Your task to perform on an android device: Open the Play Movies app and select the watchlist tab. Image 0: 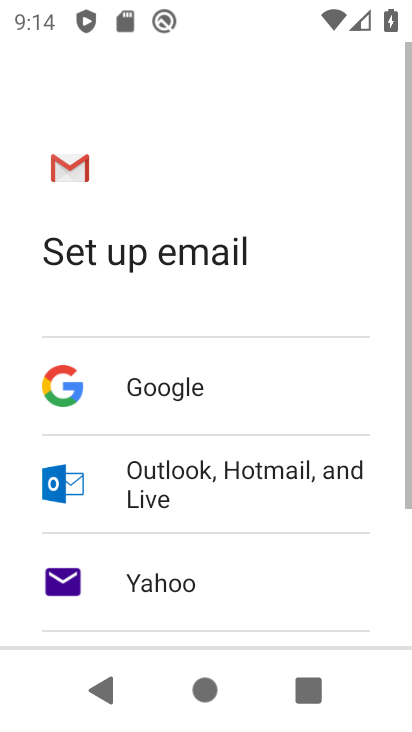
Step 0: drag from (366, 495) to (405, 428)
Your task to perform on an android device: Open the Play Movies app and select the watchlist tab. Image 1: 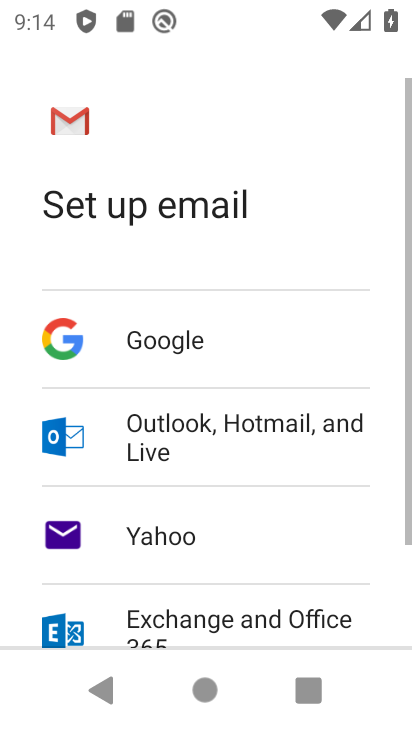
Step 1: press home button
Your task to perform on an android device: Open the Play Movies app and select the watchlist tab. Image 2: 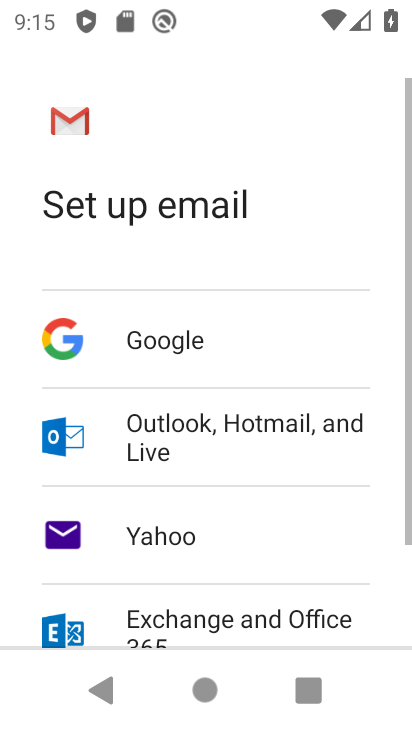
Step 2: click (405, 428)
Your task to perform on an android device: Open the Play Movies app and select the watchlist tab. Image 3: 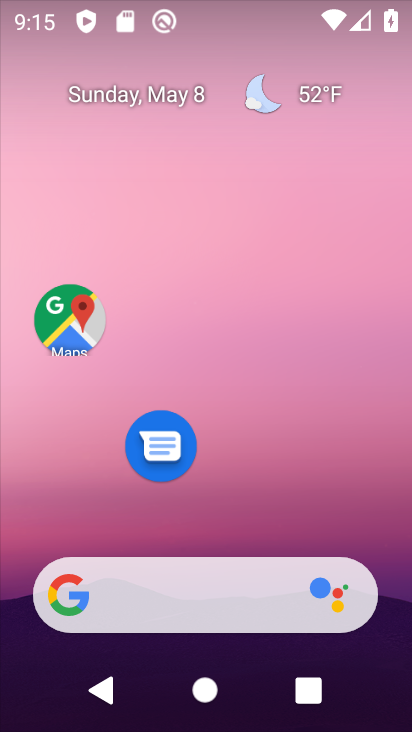
Step 3: drag from (336, 481) to (370, 81)
Your task to perform on an android device: Open the Play Movies app and select the watchlist tab. Image 4: 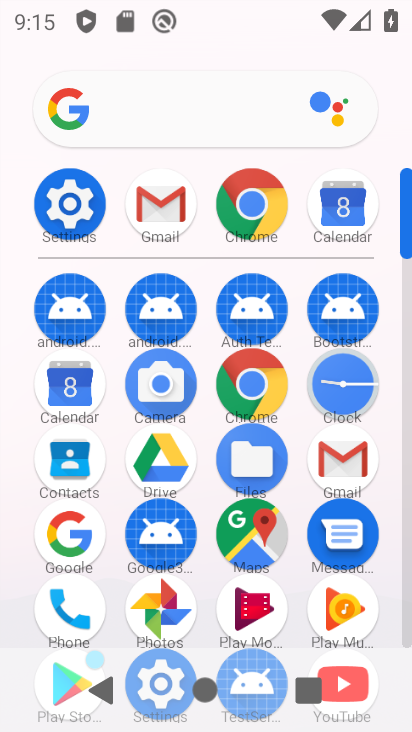
Step 4: drag from (408, 228) to (398, 312)
Your task to perform on an android device: Open the Play Movies app and select the watchlist tab. Image 5: 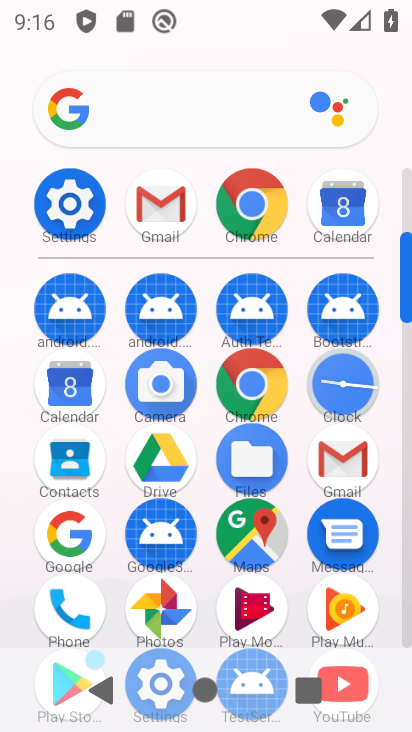
Step 5: click (407, 616)
Your task to perform on an android device: Open the Play Movies app and select the watchlist tab. Image 6: 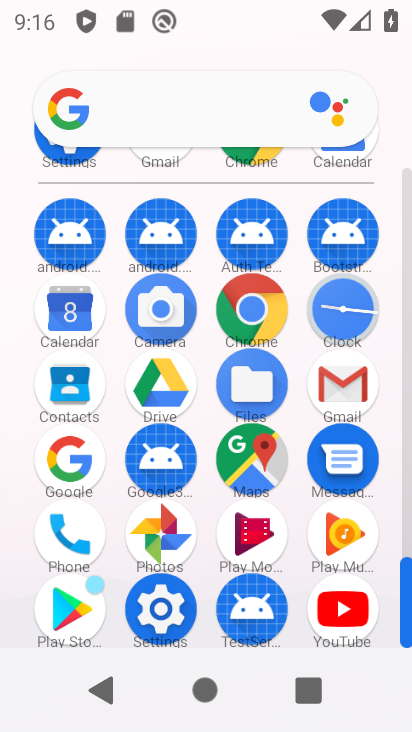
Step 6: click (261, 532)
Your task to perform on an android device: Open the Play Movies app and select the watchlist tab. Image 7: 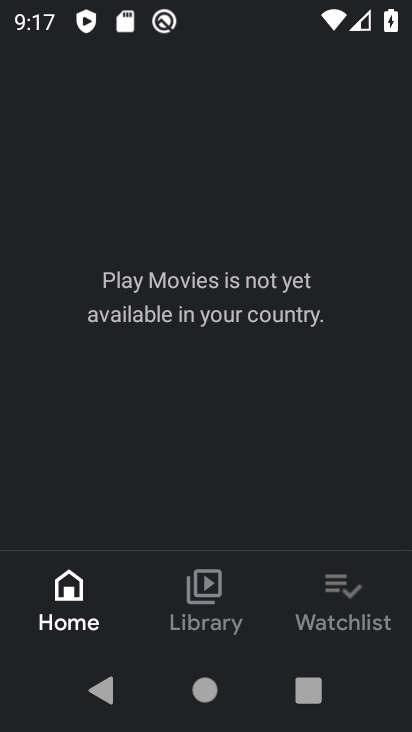
Step 7: click (284, 605)
Your task to perform on an android device: Open the Play Movies app and select the watchlist tab. Image 8: 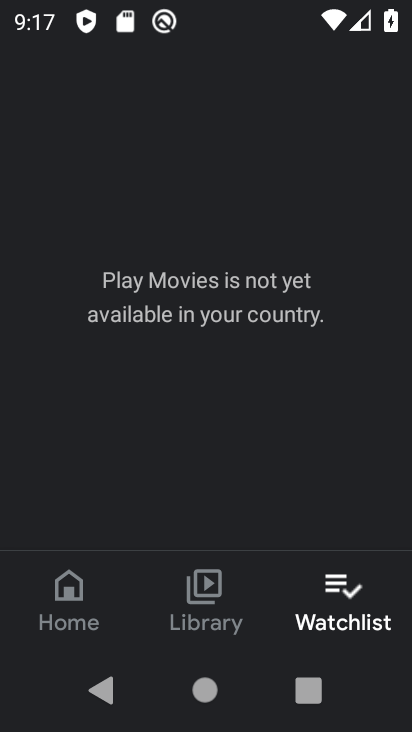
Step 8: task complete